Your task to perform on an android device: set default search engine in the chrome app Image 0: 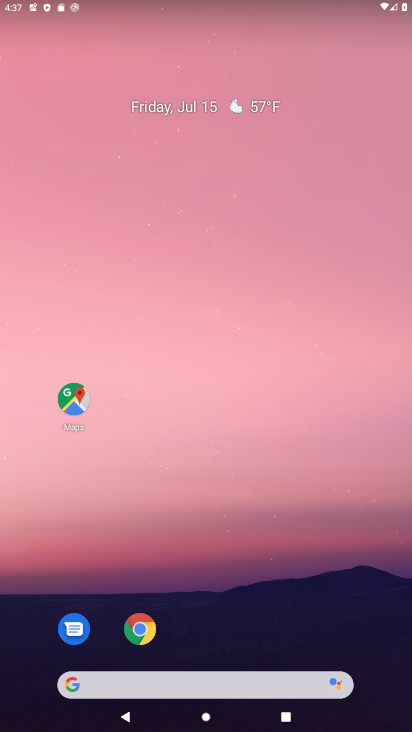
Step 0: press home button
Your task to perform on an android device: set default search engine in the chrome app Image 1: 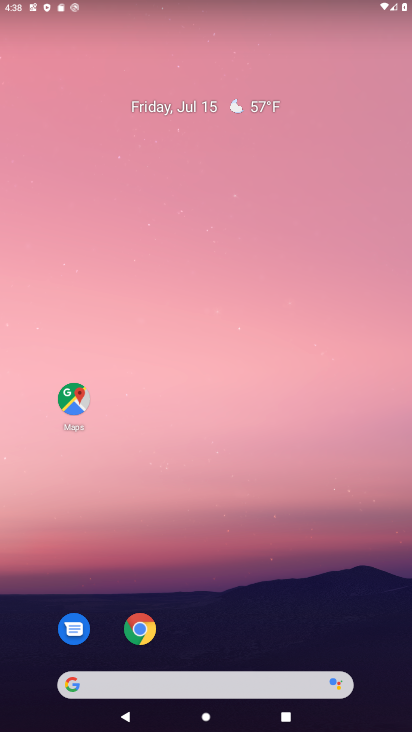
Step 1: drag from (285, 643) to (5, 131)
Your task to perform on an android device: set default search engine in the chrome app Image 2: 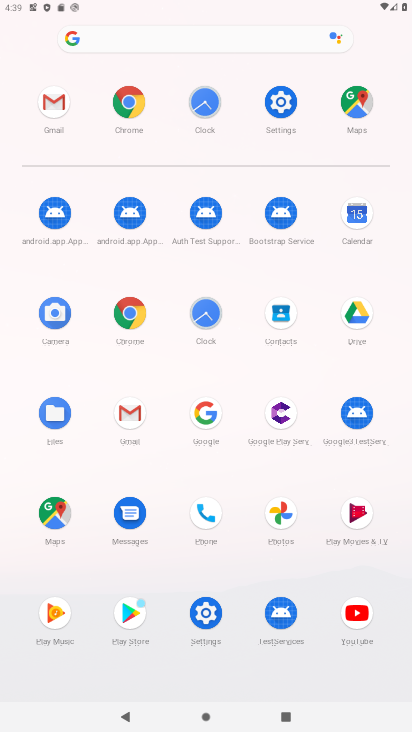
Step 2: click (125, 101)
Your task to perform on an android device: set default search engine in the chrome app Image 3: 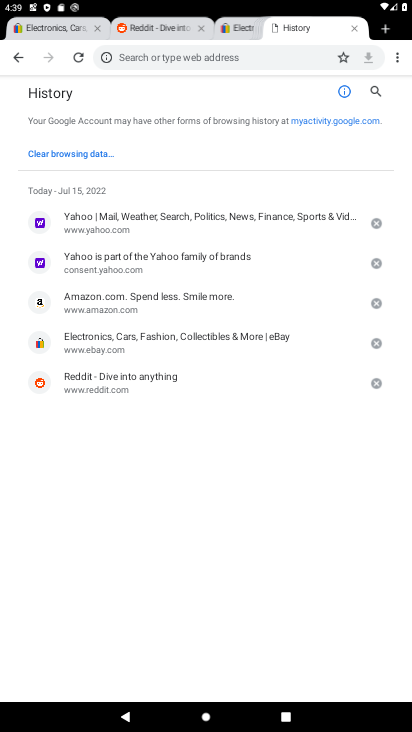
Step 3: drag from (399, 49) to (318, 267)
Your task to perform on an android device: set default search engine in the chrome app Image 4: 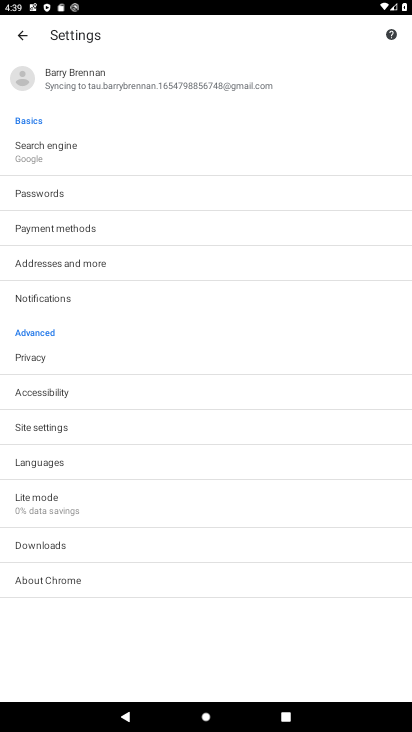
Step 4: click (49, 146)
Your task to perform on an android device: set default search engine in the chrome app Image 5: 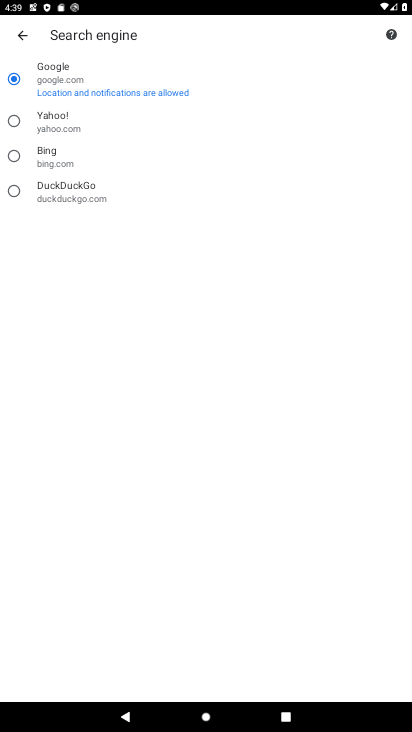
Step 5: click (20, 190)
Your task to perform on an android device: set default search engine in the chrome app Image 6: 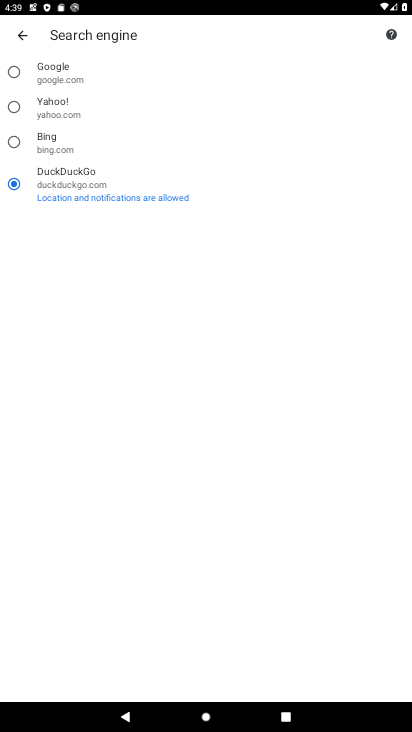
Step 6: task complete